Your task to perform on an android device: Go to sound settings Image 0: 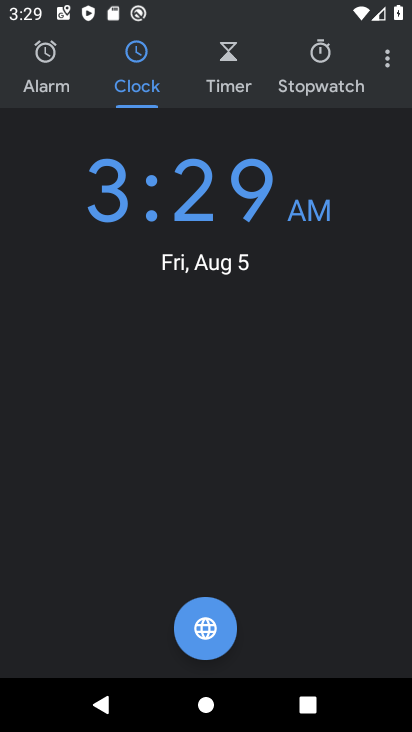
Step 0: press home button
Your task to perform on an android device: Go to sound settings Image 1: 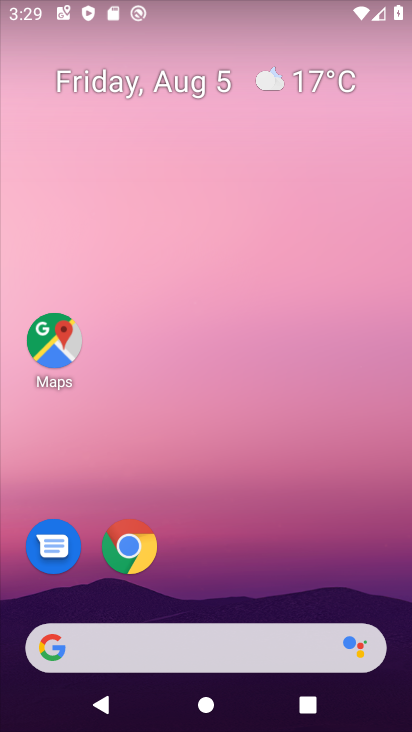
Step 1: drag from (342, 547) to (349, 110)
Your task to perform on an android device: Go to sound settings Image 2: 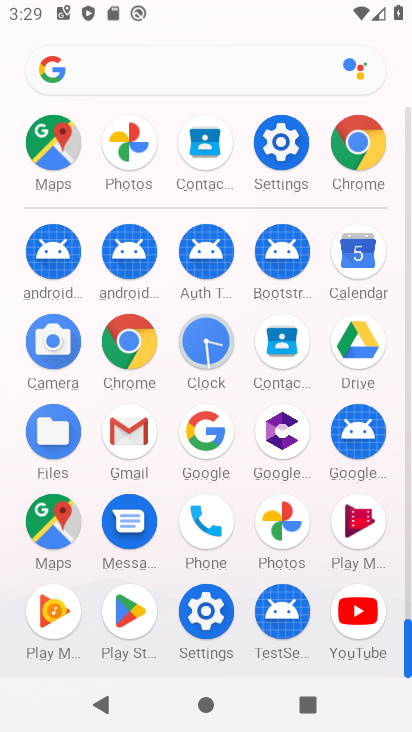
Step 2: click (276, 150)
Your task to perform on an android device: Go to sound settings Image 3: 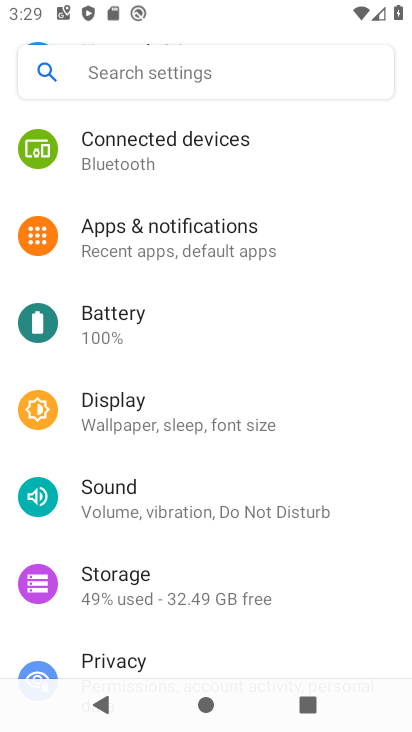
Step 3: drag from (351, 246) to (348, 467)
Your task to perform on an android device: Go to sound settings Image 4: 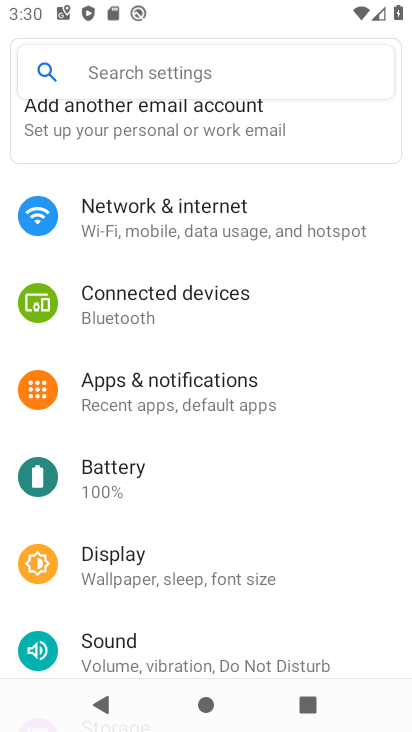
Step 4: drag from (368, 289) to (354, 513)
Your task to perform on an android device: Go to sound settings Image 5: 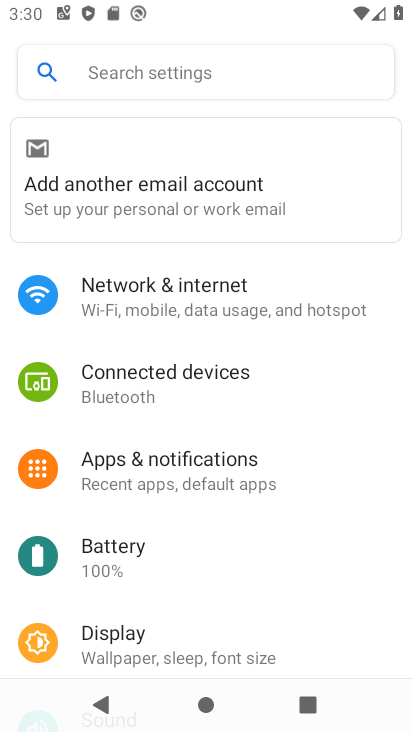
Step 5: drag from (351, 565) to (350, 341)
Your task to perform on an android device: Go to sound settings Image 6: 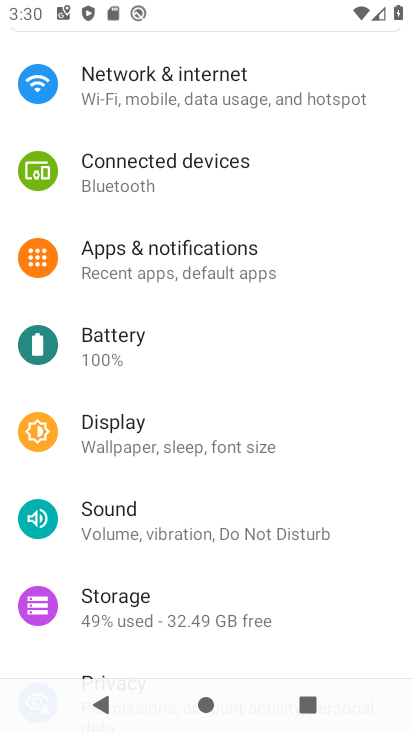
Step 6: drag from (353, 514) to (353, 363)
Your task to perform on an android device: Go to sound settings Image 7: 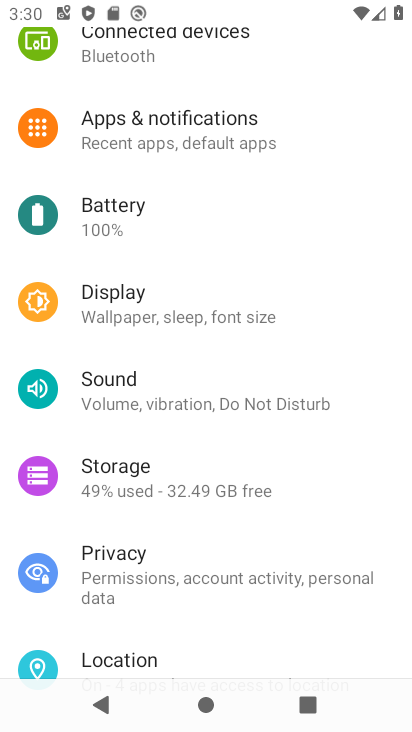
Step 7: drag from (346, 537) to (354, 415)
Your task to perform on an android device: Go to sound settings Image 8: 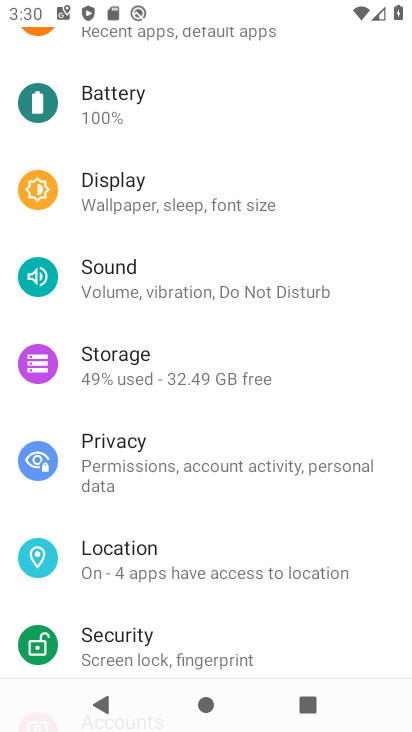
Step 8: drag from (355, 583) to (354, 460)
Your task to perform on an android device: Go to sound settings Image 9: 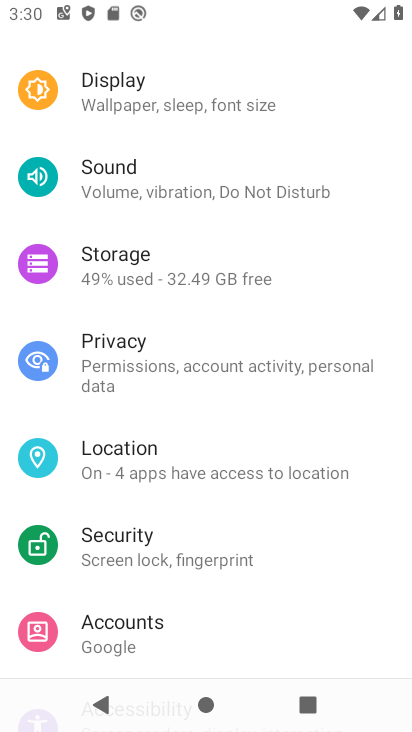
Step 9: click (252, 190)
Your task to perform on an android device: Go to sound settings Image 10: 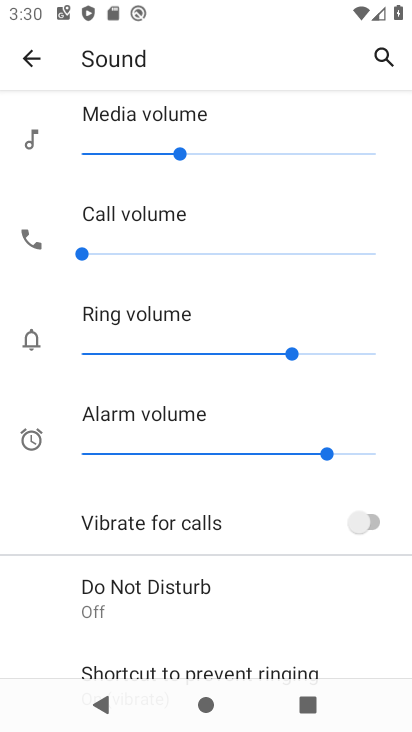
Step 10: task complete